Your task to perform on an android device: stop showing notifications on the lock screen Image 0: 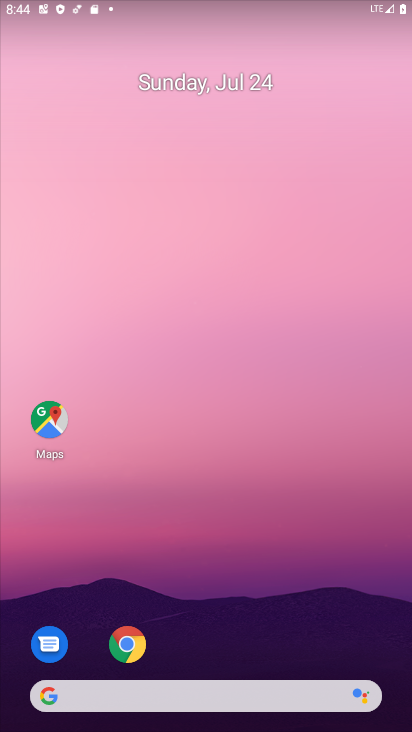
Step 0: press home button
Your task to perform on an android device: stop showing notifications on the lock screen Image 1: 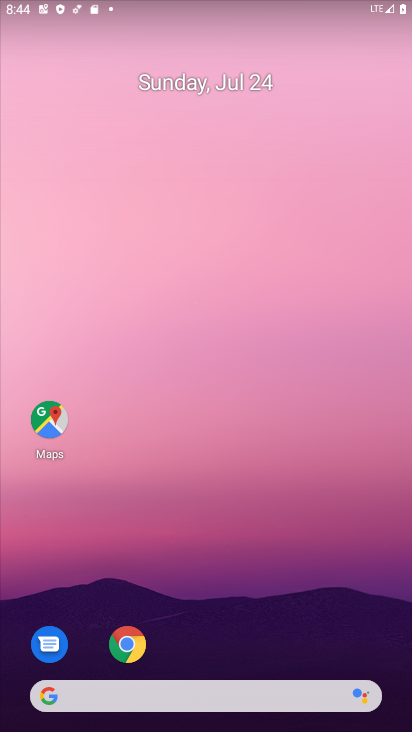
Step 1: drag from (20, 595) to (229, 80)
Your task to perform on an android device: stop showing notifications on the lock screen Image 2: 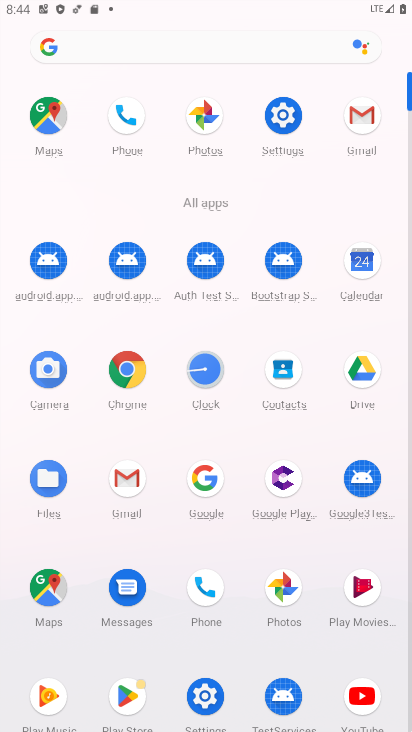
Step 2: click (297, 112)
Your task to perform on an android device: stop showing notifications on the lock screen Image 3: 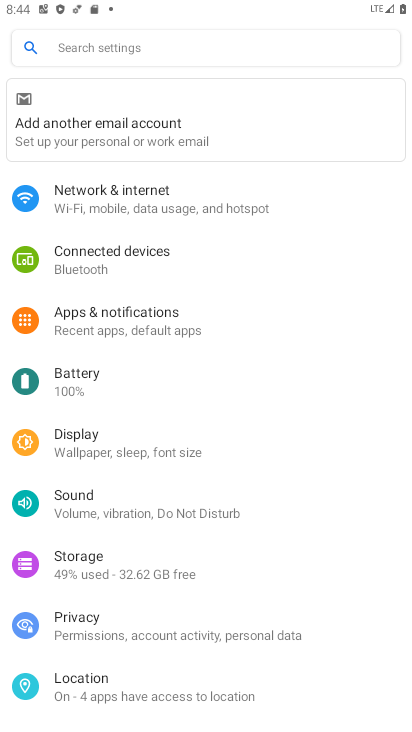
Step 3: click (82, 314)
Your task to perform on an android device: stop showing notifications on the lock screen Image 4: 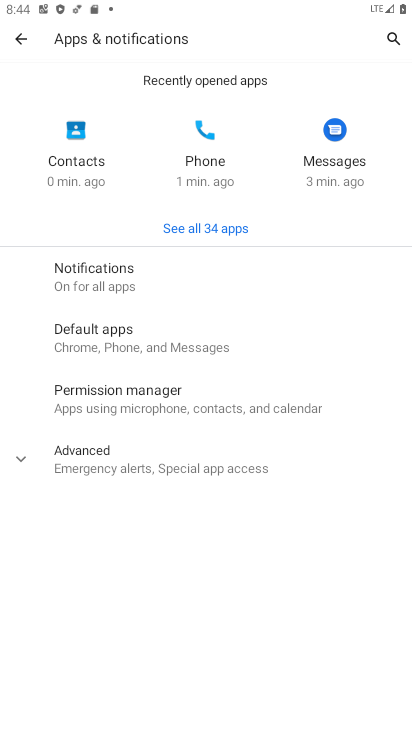
Step 4: click (104, 273)
Your task to perform on an android device: stop showing notifications on the lock screen Image 5: 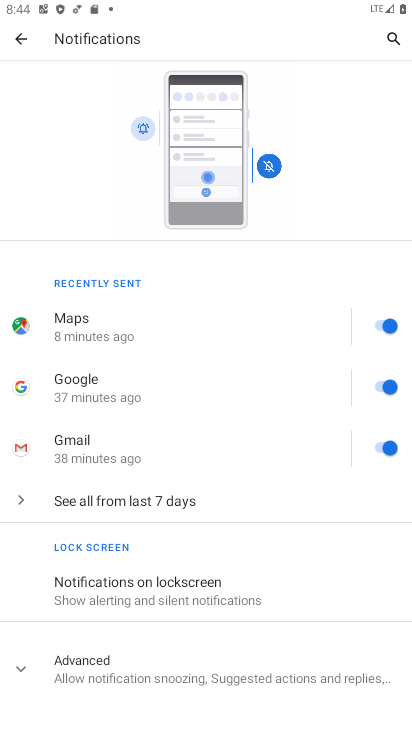
Step 5: click (207, 582)
Your task to perform on an android device: stop showing notifications on the lock screen Image 6: 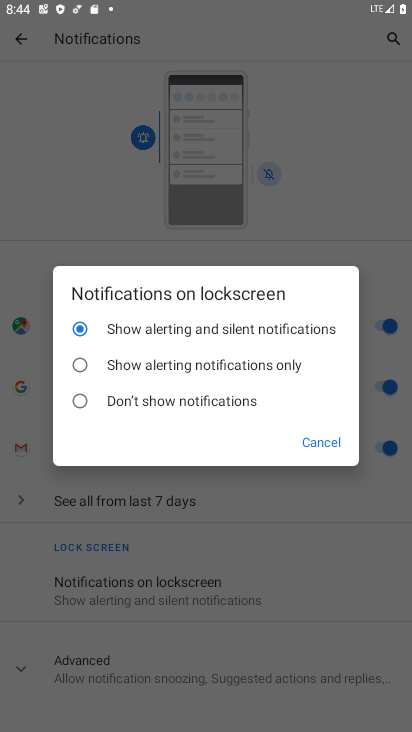
Step 6: click (184, 388)
Your task to perform on an android device: stop showing notifications on the lock screen Image 7: 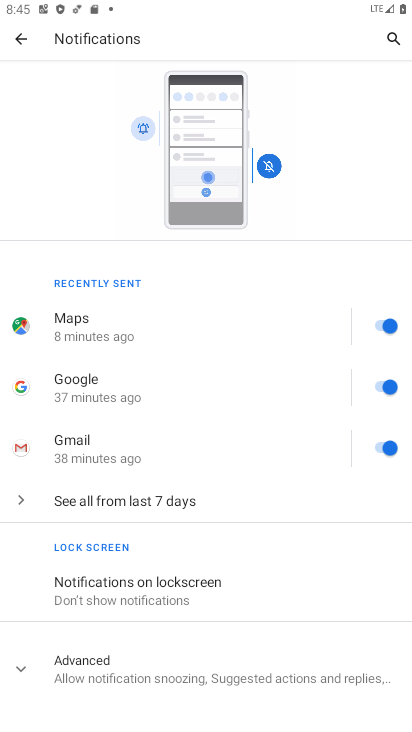
Step 7: task complete